Your task to perform on an android device: turn off javascript in the chrome app Image 0: 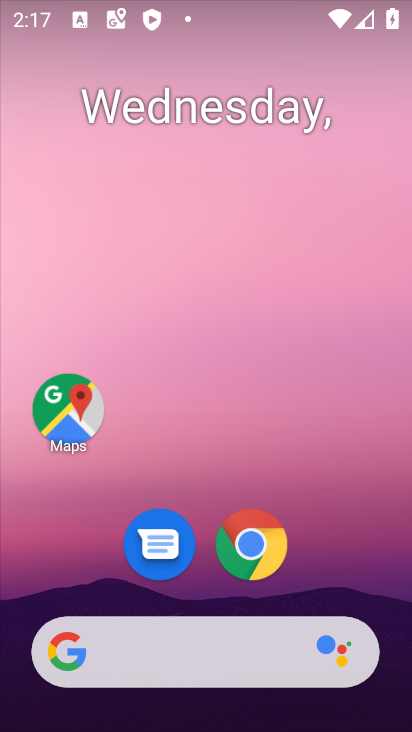
Step 0: click (253, 548)
Your task to perform on an android device: turn off javascript in the chrome app Image 1: 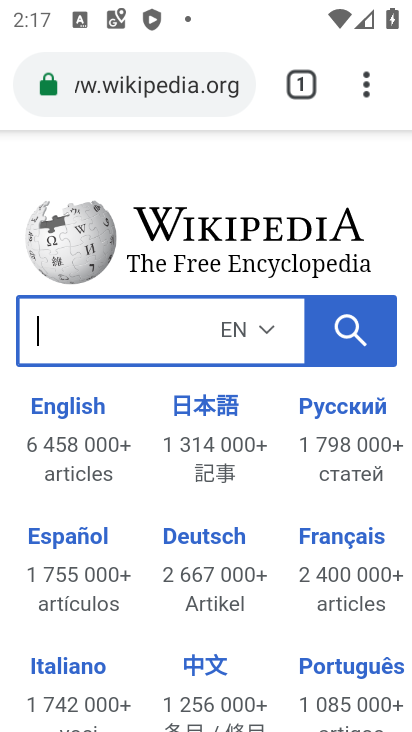
Step 1: click (366, 91)
Your task to perform on an android device: turn off javascript in the chrome app Image 2: 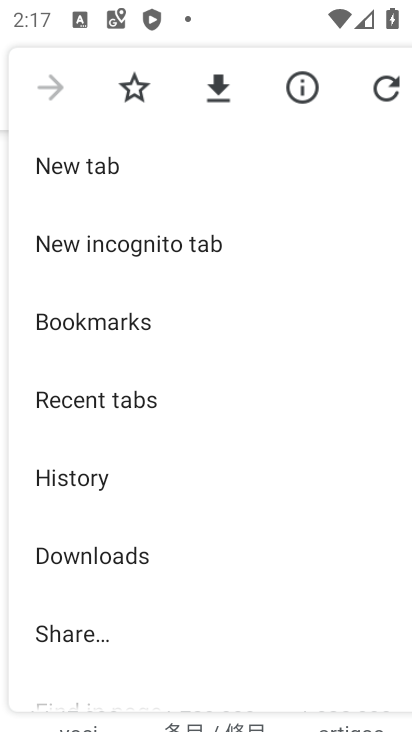
Step 2: drag from (204, 659) to (248, 257)
Your task to perform on an android device: turn off javascript in the chrome app Image 3: 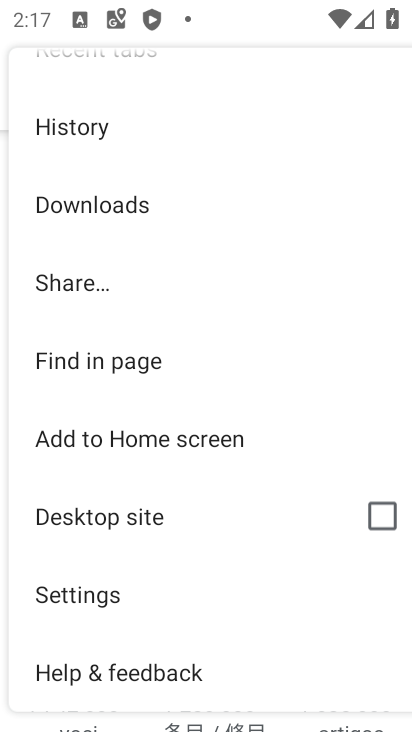
Step 3: click (93, 593)
Your task to perform on an android device: turn off javascript in the chrome app Image 4: 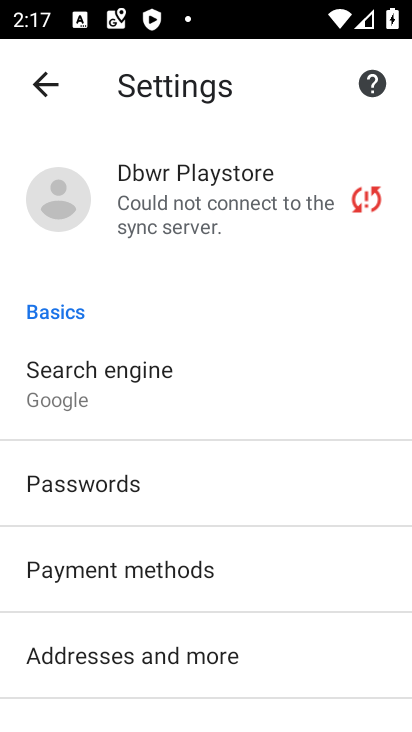
Step 4: drag from (259, 644) to (243, 255)
Your task to perform on an android device: turn off javascript in the chrome app Image 5: 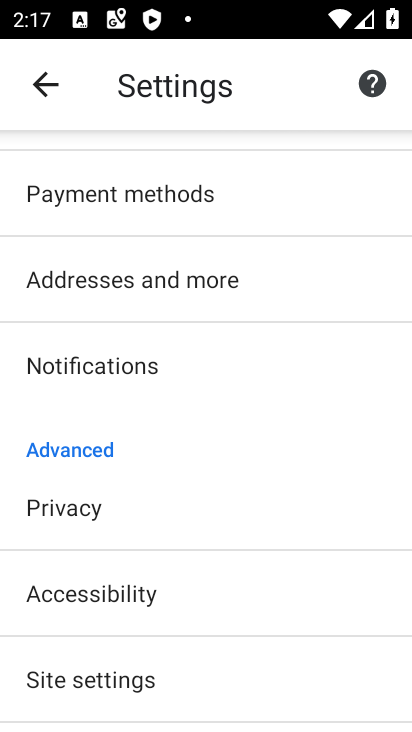
Step 5: drag from (219, 659) to (281, 243)
Your task to perform on an android device: turn off javascript in the chrome app Image 6: 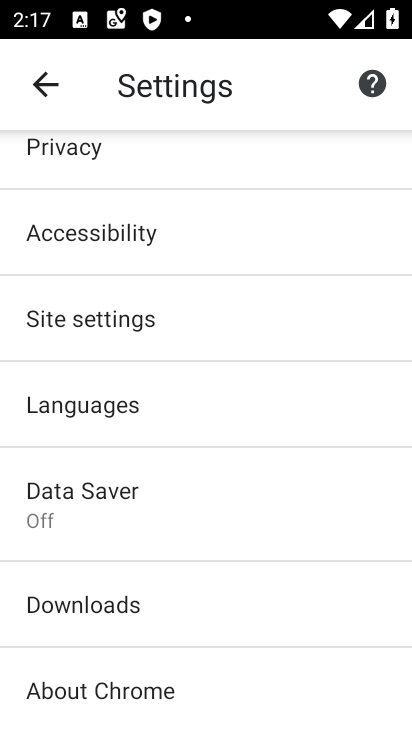
Step 6: click (92, 321)
Your task to perform on an android device: turn off javascript in the chrome app Image 7: 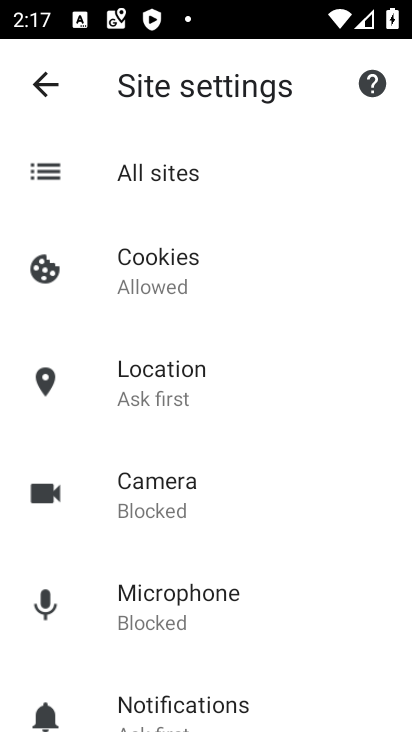
Step 7: drag from (299, 662) to (251, 248)
Your task to perform on an android device: turn off javascript in the chrome app Image 8: 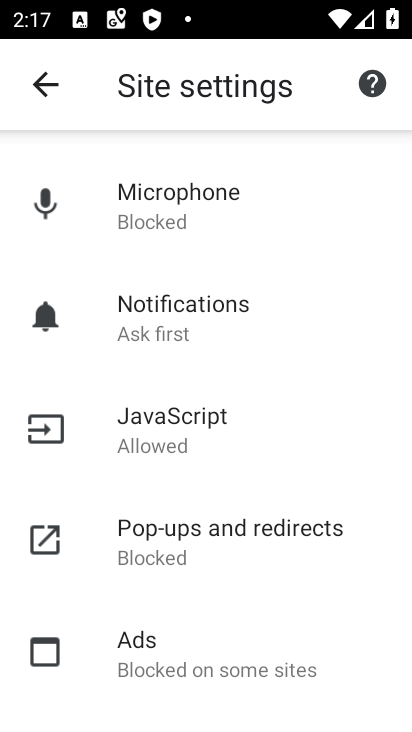
Step 8: click (160, 440)
Your task to perform on an android device: turn off javascript in the chrome app Image 9: 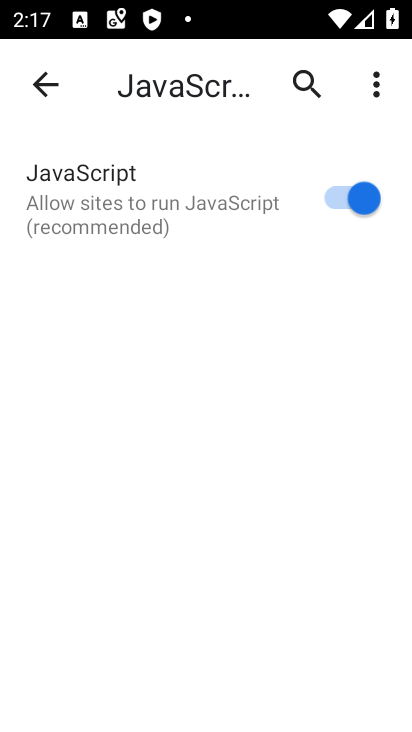
Step 9: click (328, 200)
Your task to perform on an android device: turn off javascript in the chrome app Image 10: 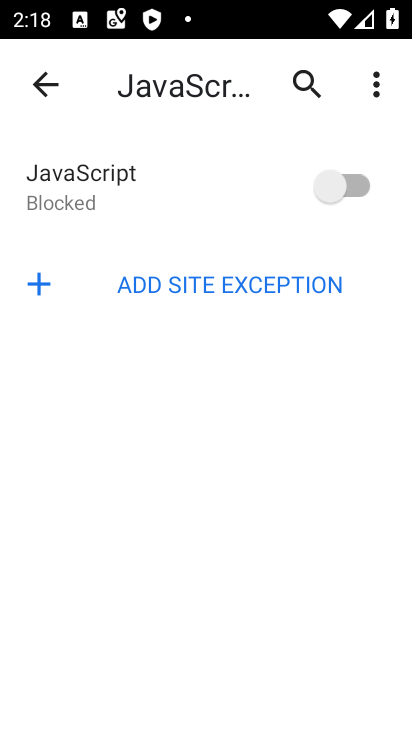
Step 10: task complete